Your task to perform on an android device: change alarm snooze length Image 0: 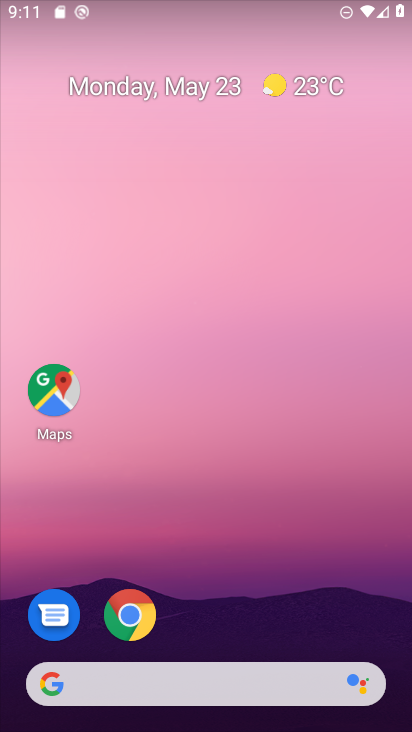
Step 0: drag from (250, 618) to (179, 161)
Your task to perform on an android device: change alarm snooze length Image 1: 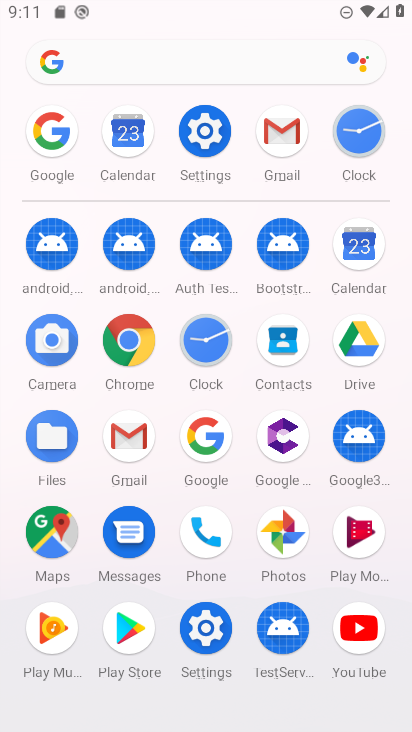
Step 1: click (359, 131)
Your task to perform on an android device: change alarm snooze length Image 2: 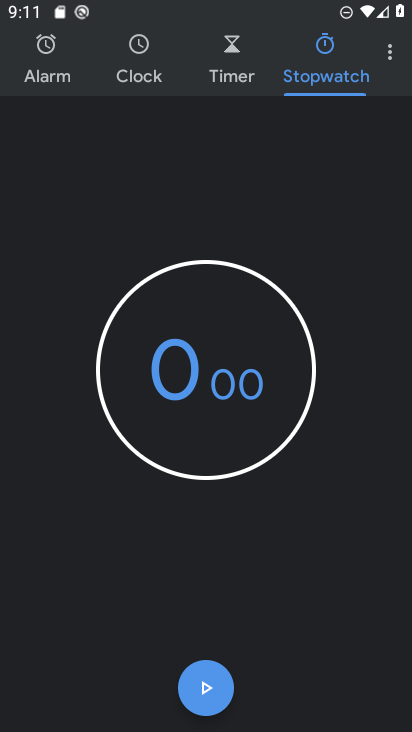
Step 2: click (391, 53)
Your task to perform on an android device: change alarm snooze length Image 3: 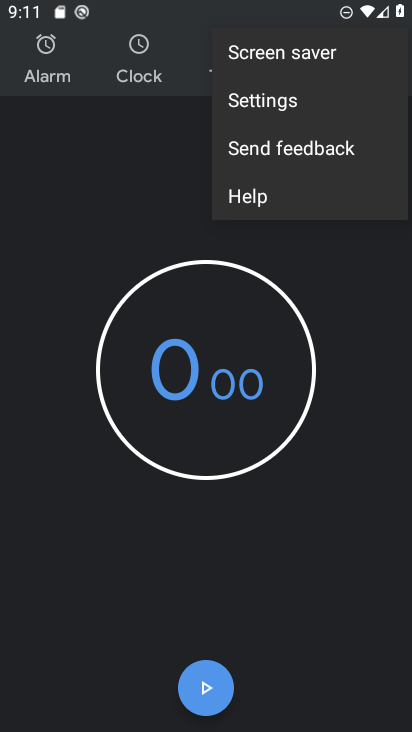
Step 3: click (290, 109)
Your task to perform on an android device: change alarm snooze length Image 4: 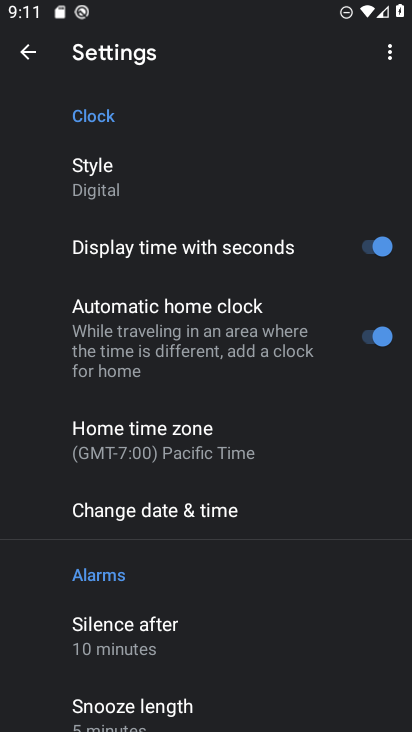
Step 4: drag from (219, 600) to (269, 490)
Your task to perform on an android device: change alarm snooze length Image 5: 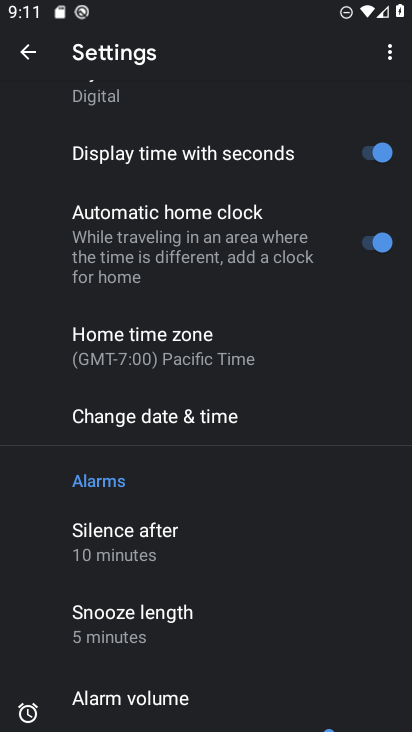
Step 5: click (175, 619)
Your task to perform on an android device: change alarm snooze length Image 6: 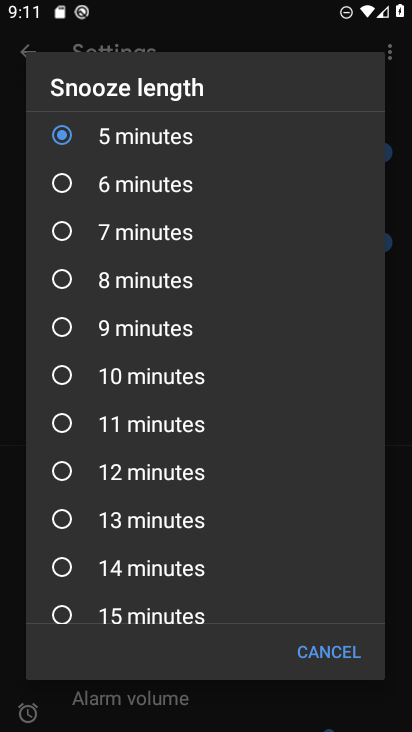
Step 6: drag from (91, 329) to (108, 268)
Your task to perform on an android device: change alarm snooze length Image 7: 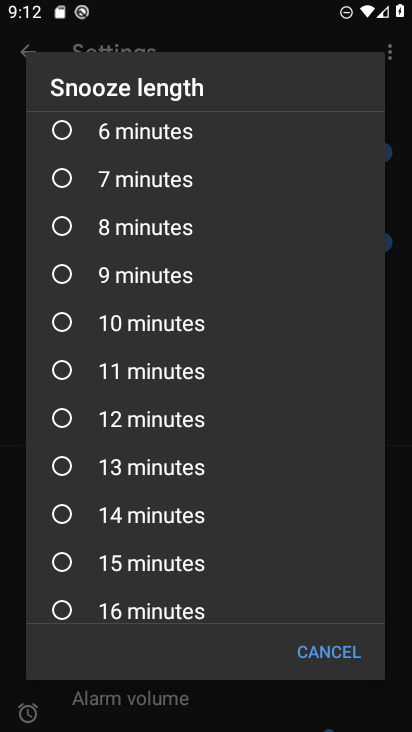
Step 7: click (61, 413)
Your task to perform on an android device: change alarm snooze length Image 8: 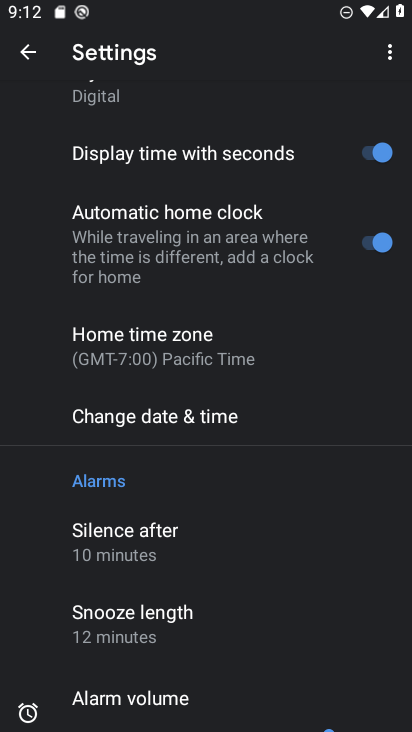
Step 8: task complete